Your task to perform on an android device: What's the weather going to be tomorrow? Image 0: 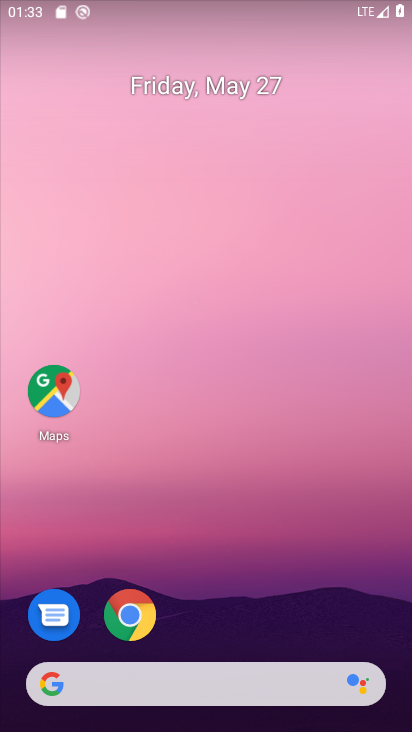
Step 0: click (260, 690)
Your task to perform on an android device: What's the weather going to be tomorrow? Image 1: 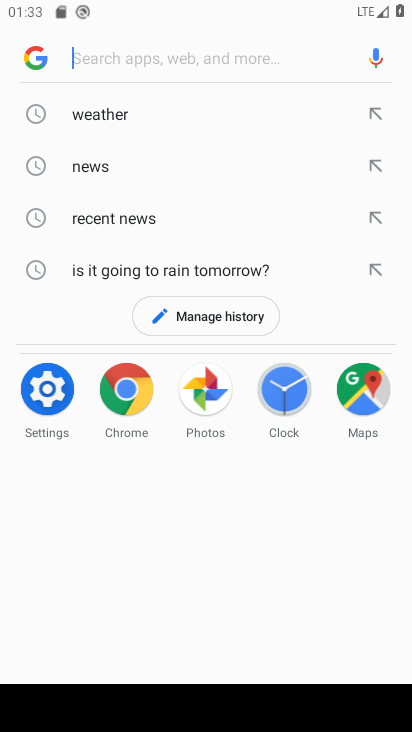
Step 1: click (148, 118)
Your task to perform on an android device: What's the weather going to be tomorrow? Image 2: 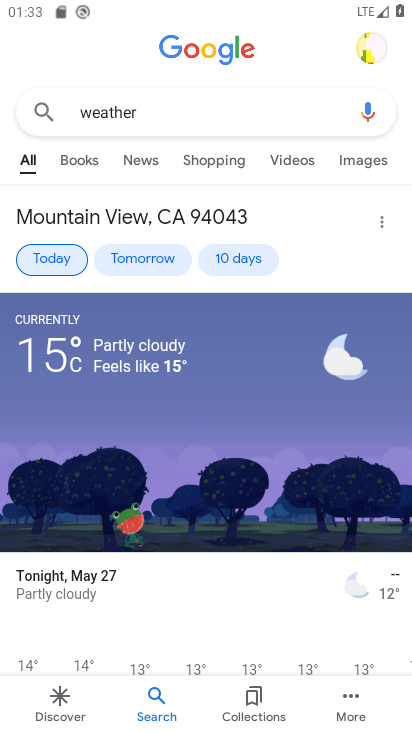
Step 2: click (140, 265)
Your task to perform on an android device: What's the weather going to be tomorrow? Image 3: 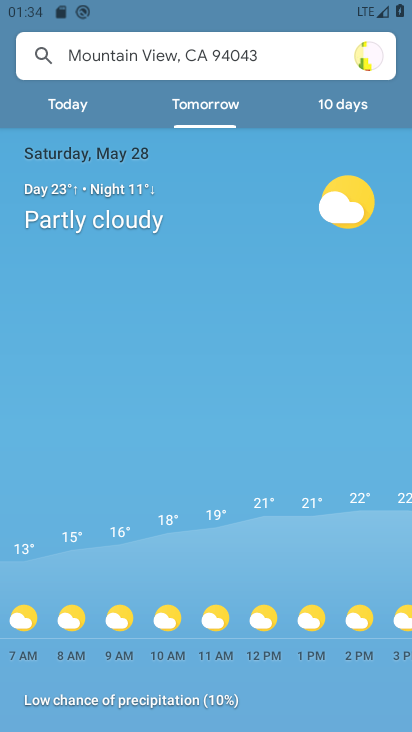
Step 3: task complete